Your task to perform on an android device: Open display settings Image 0: 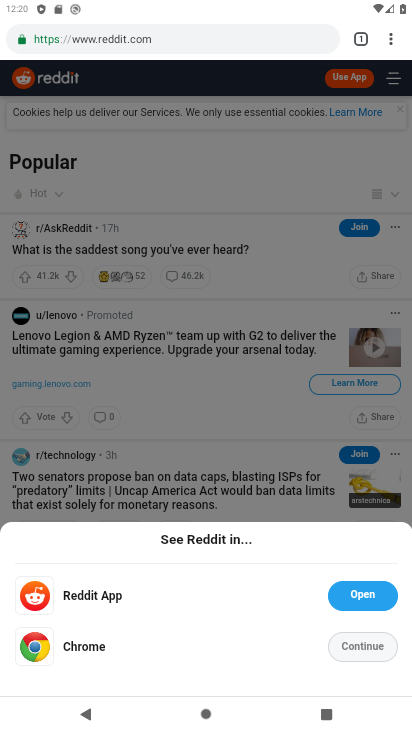
Step 0: press home button
Your task to perform on an android device: Open display settings Image 1: 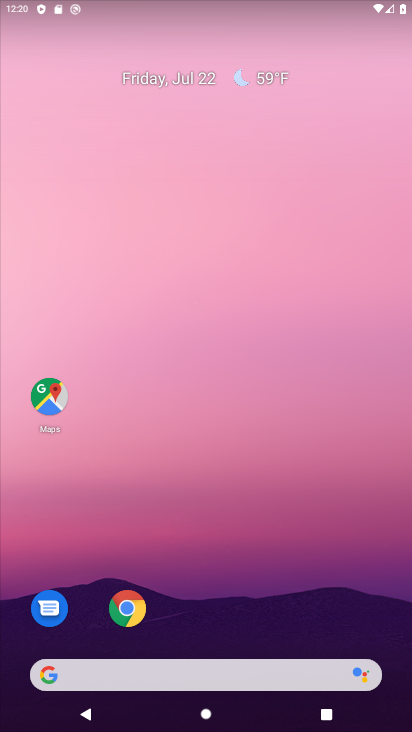
Step 1: drag from (207, 584) to (224, 8)
Your task to perform on an android device: Open display settings Image 2: 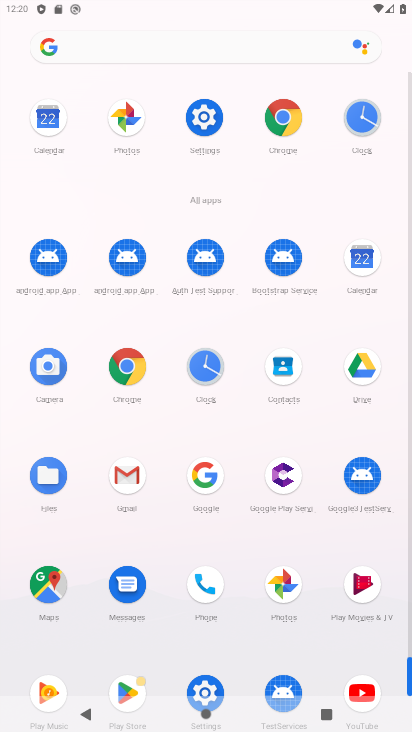
Step 2: drag from (230, 639) to (232, 513)
Your task to perform on an android device: Open display settings Image 3: 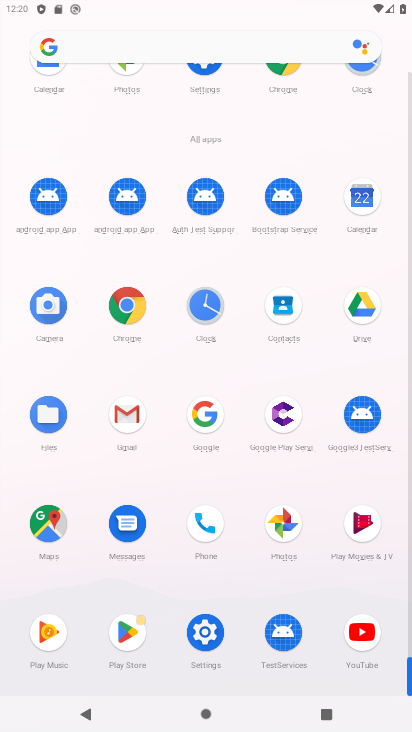
Step 3: click (210, 638)
Your task to perform on an android device: Open display settings Image 4: 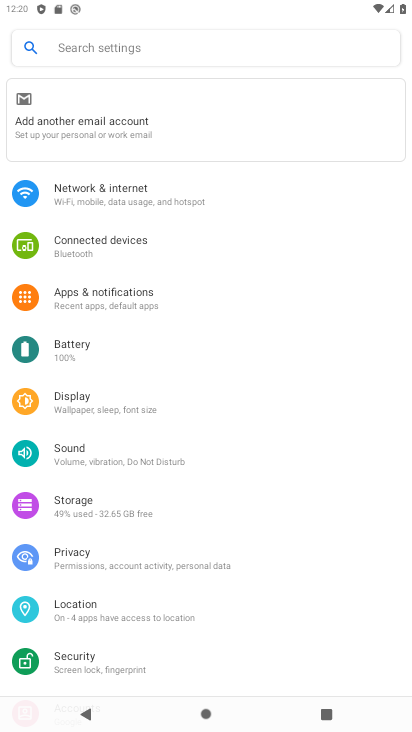
Step 4: click (103, 401)
Your task to perform on an android device: Open display settings Image 5: 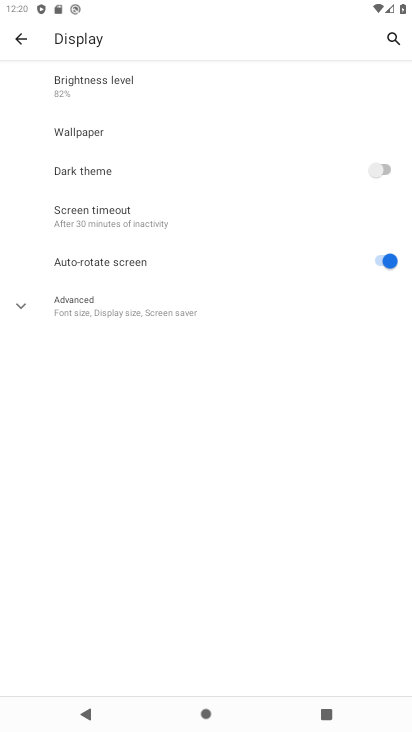
Step 5: task complete